Your task to perform on an android device: Open the phone app and click the voicemail tab. Image 0: 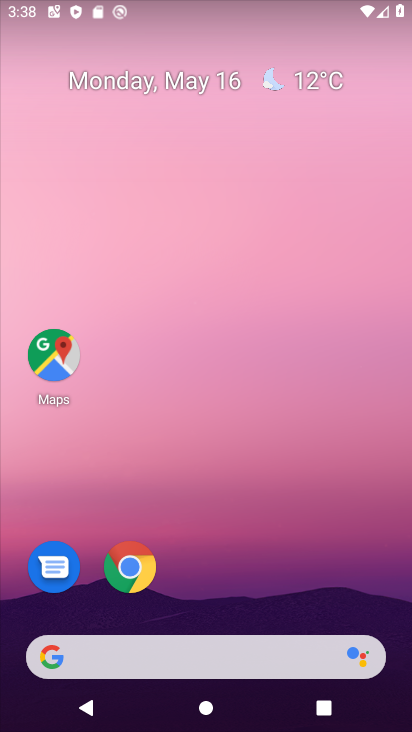
Step 0: drag from (237, 538) to (176, 5)
Your task to perform on an android device: Open the phone app and click the voicemail tab. Image 1: 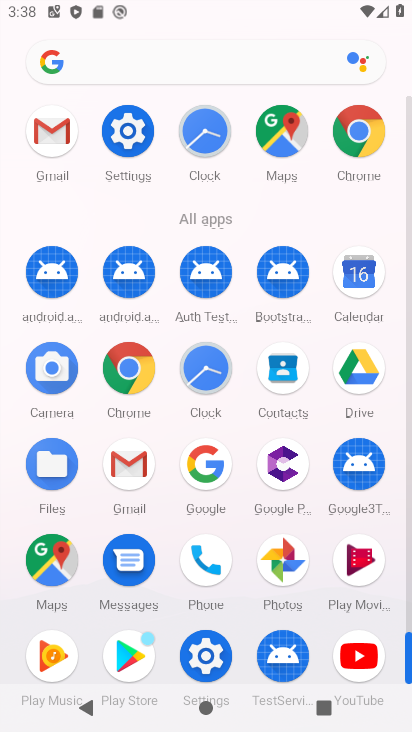
Step 1: drag from (1, 583) to (21, 194)
Your task to perform on an android device: Open the phone app and click the voicemail tab. Image 2: 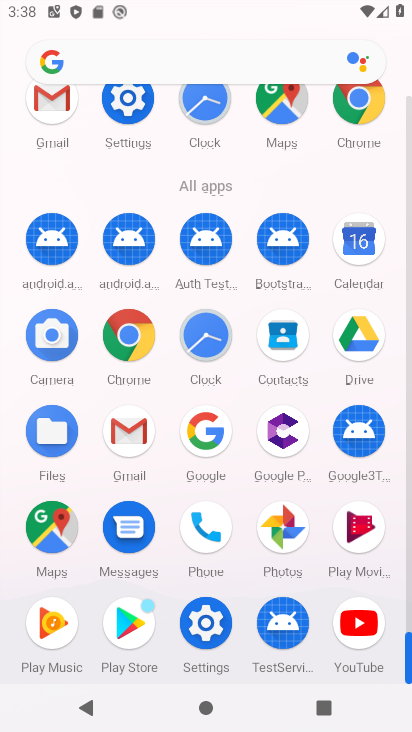
Step 2: click (207, 526)
Your task to perform on an android device: Open the phone app and click the voicemail tab. Image 3: 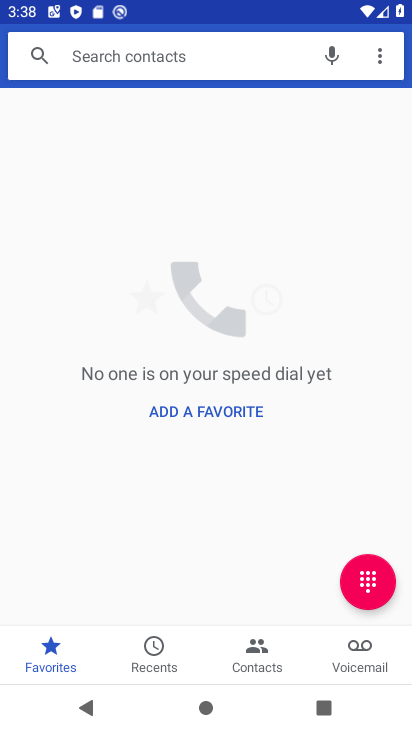
Step 3: click (353, 644)
Your task to perform on an android device: Open the phone app and click the voicemail tab. Image 4: 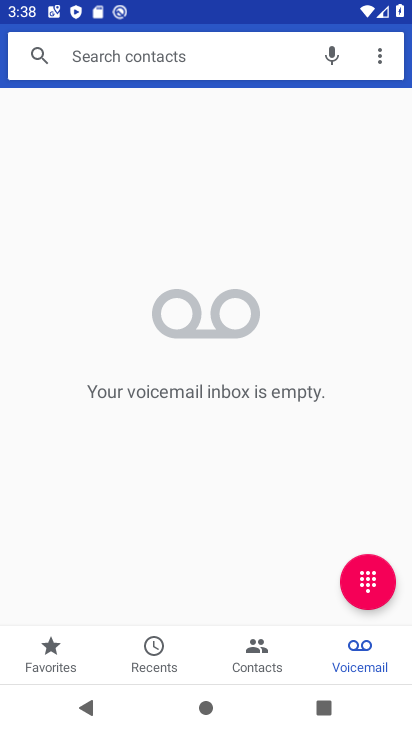
Step 4: task complete